Your task to perform on an android device: install app "Google News" Image 0: 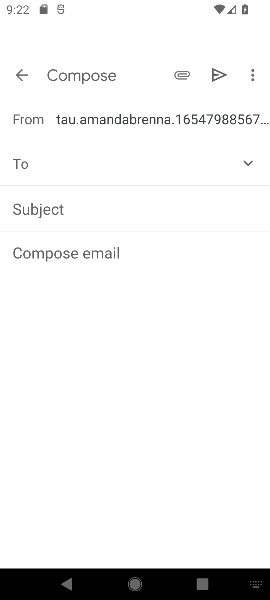
Step 0: press back button
Your task to perform on an android device: install app "Google News" Image 1: 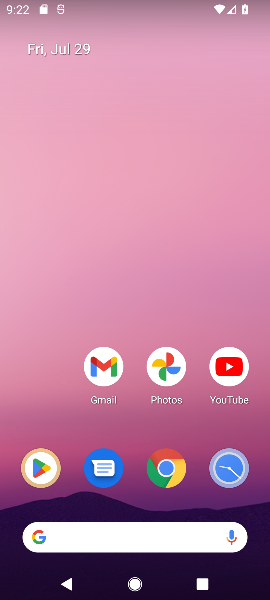
Step 1: click (46, 469)
Your task to perform on an android device: install app "Google News" Image 2: 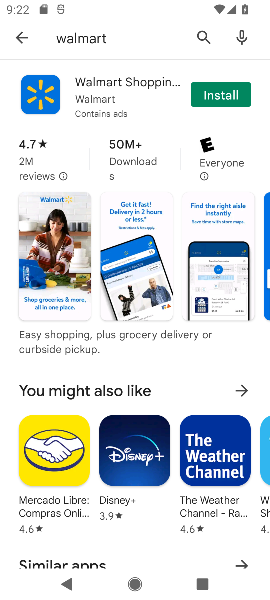
Step 2: click (198, 33)
Your task to perform on an android device: install app "Google News" Image 3: 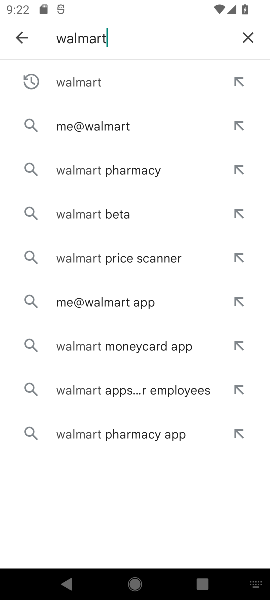
Step 3: click (239, 33)
Your task to perform on an android device: install app "Google News" Image 4: 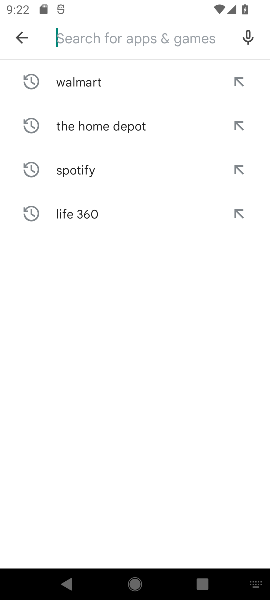
Step 4: click (106, 41)
Your task to perform on an android device: install app "Google News" Image 5: 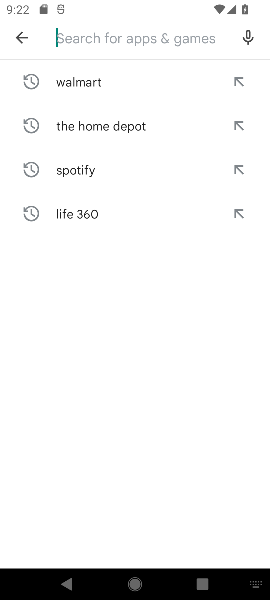
Step 5: type "google news"
Your task to perform on an android device: install app "Google News" Image 6: 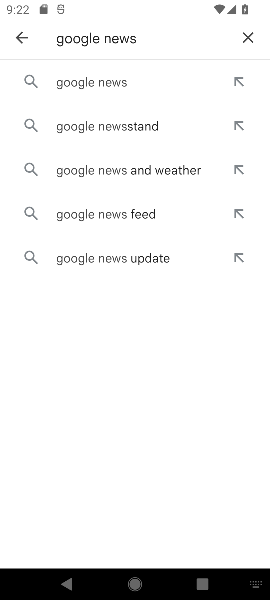
Step 6: click (96, 91)
Your task to perform on an android device: install app "Google News" Image 7: 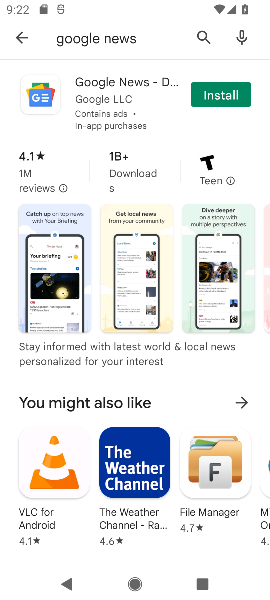
Step 7: click (223, 97)
Your task to perform on an android device: install app "Google News" Image 8: 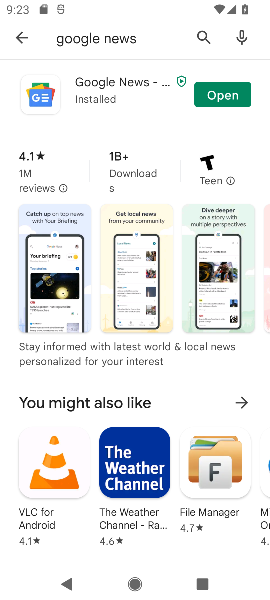
Step 8: task complete